Your task to perform on an android device: Open sound settings Image 0: 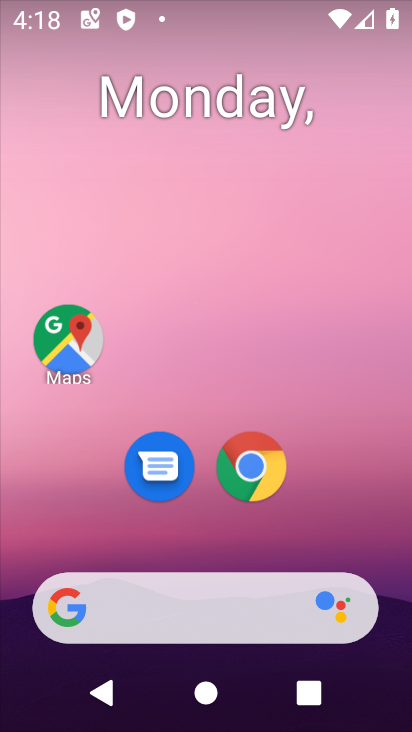
Step 0: drag from (348, 459) to (222, 4)
Your task to perform on an android device: Open sound settings Image 1: 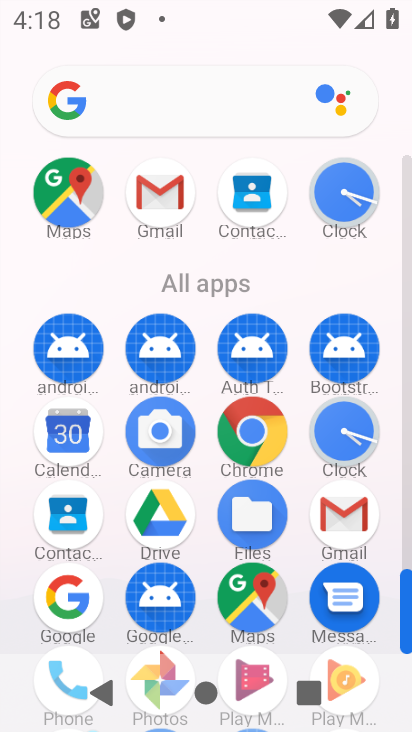
Step 1: drag from (202, 545) to (235, 119)
Your task to perform on an android device: Open sound settings Image 2: 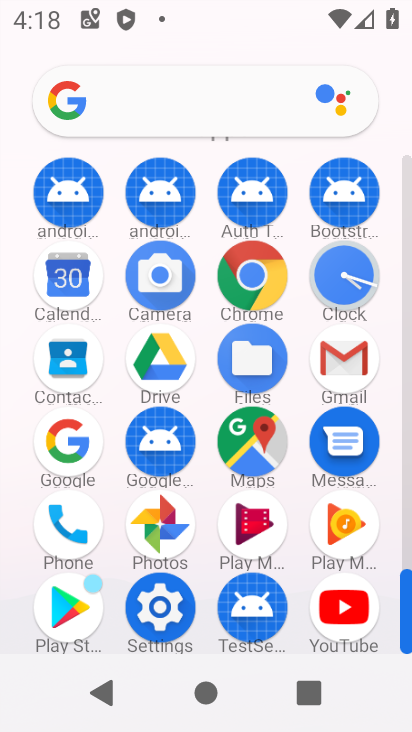
Step 2: click (155, 615)
Your task to perform on an android device: Open sound settings Image 3: 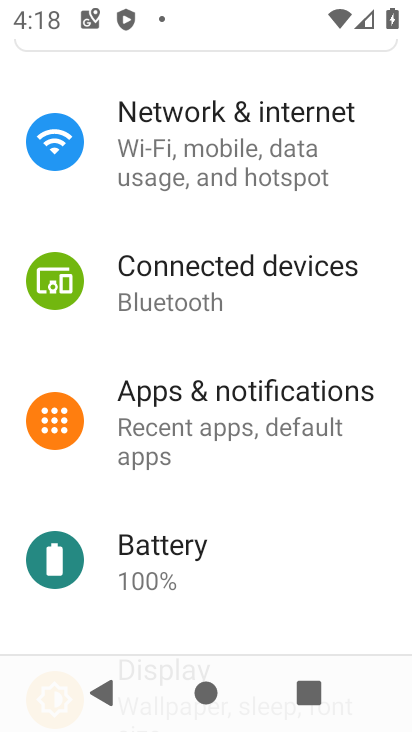
Step 3: drag from (229, 583) to (204, 113)
Your task to perform on an android device: Open sound settings Image 4: 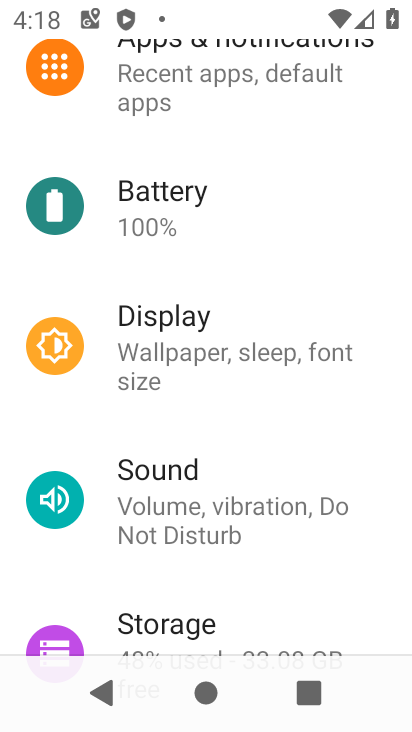
Step 4: click (238, 503)
Your task to perform on an android device: Open sound settings Image 5: 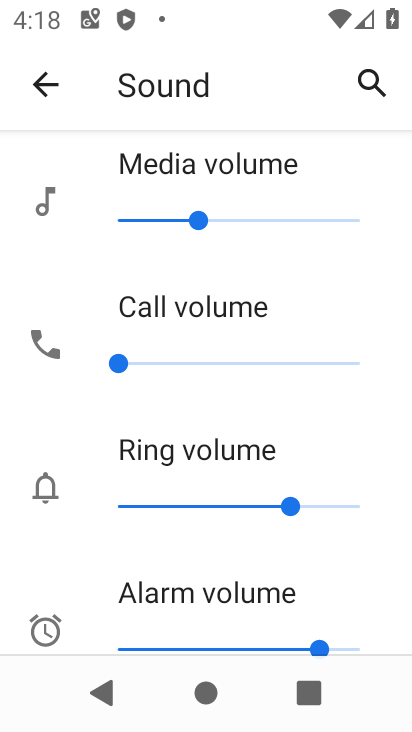
Step 5: task complete